Your task to perform on an android device: Show me popular games on the Play Store Image 0: 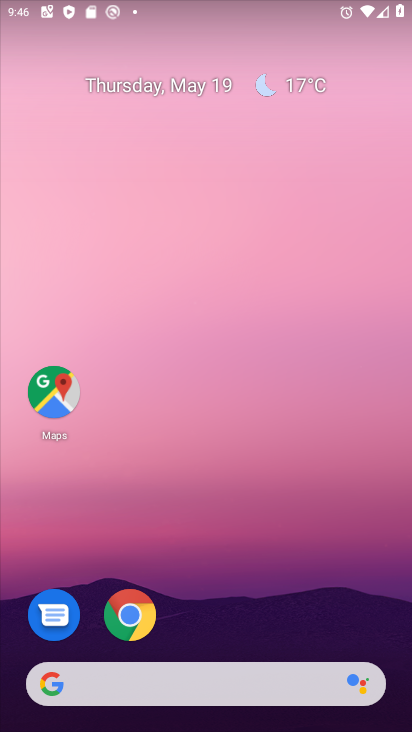
Step 0: drag from (286, 604) to (223, 76)
Your task to perform on an android device: Show me popular games on the Play Store Image 1: 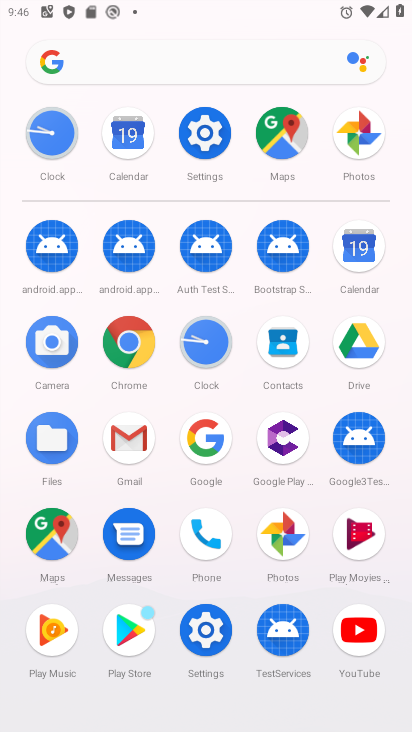
Step 1: click (142, 627)
Your task to perform on an android device: Show me popular games on the Play Store Image 2: 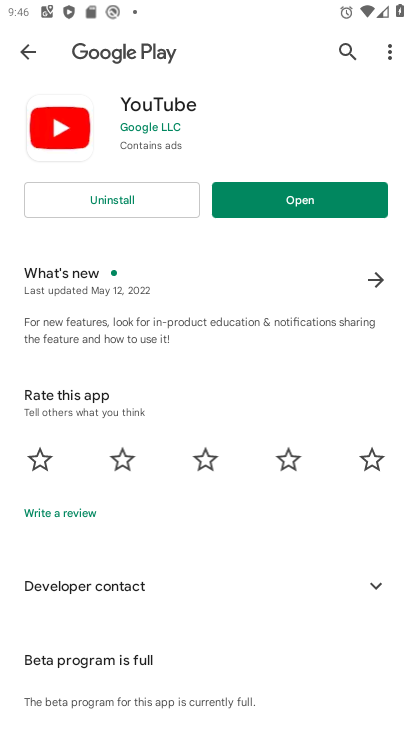
Step 2: press home button
Your task to perform on an android device: Show me popular games on the Play Store Image 3: 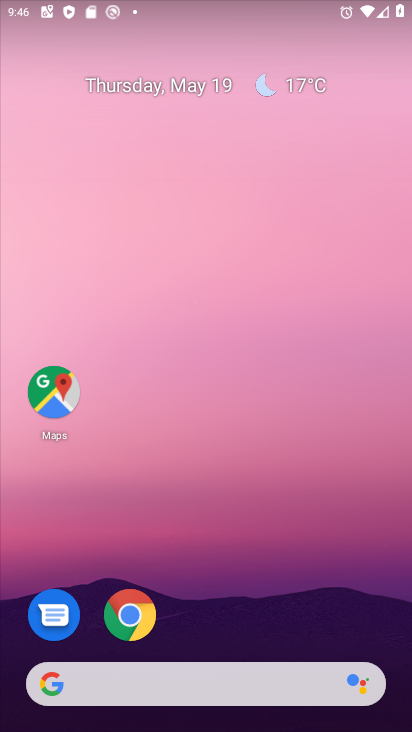
Step 3: drag from (256, 543) to (269, 102)
Your task to perform on an android device: Show me popular games on the Play Store Image 4: 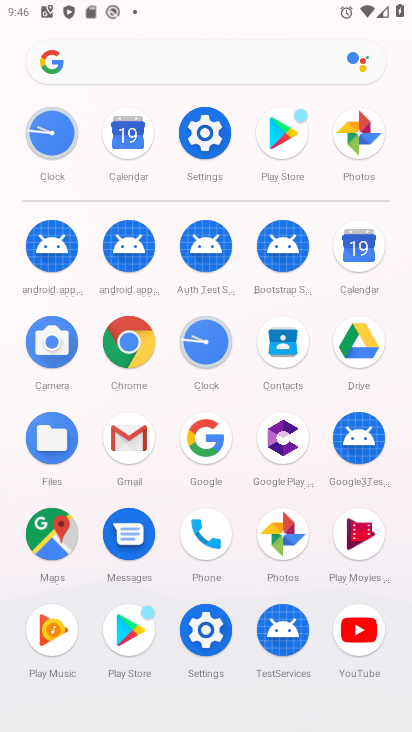
Step 4: click (125, 617)
Your task to perform on an android device: Show me popular games on the Play Store Image 5: 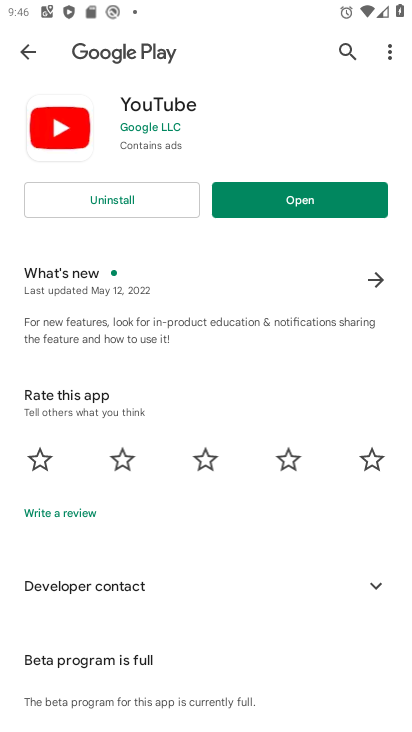
Step 5: click (30, 44)
Your task to perform on an android device: Show me popular games on the Play Store Image 6: 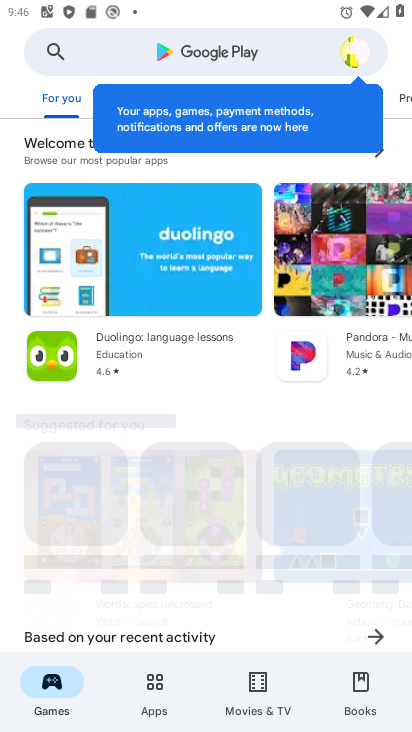
Step 6: click (107, 44)
Your task to perform on an android device: Show me popular games on the Play Store Image 7: 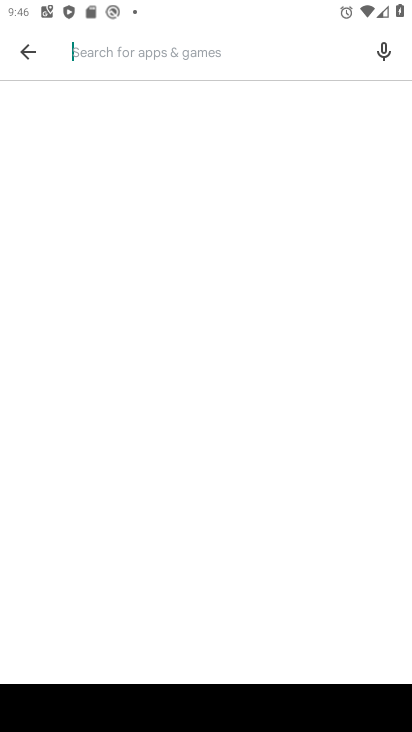
Step 7: type " popular games"
Your task to perform on an android device: Show me popular games on the Play Store Image 8: 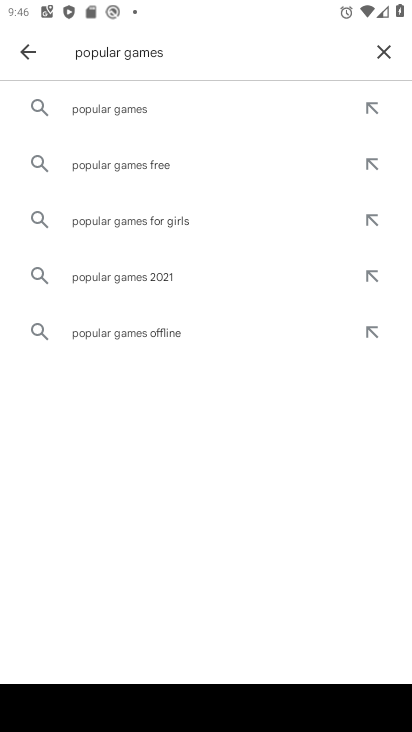
Step 8: click (162, 108)
Your task to perform on an android device: Show me popular games on the Play Store Image 9: 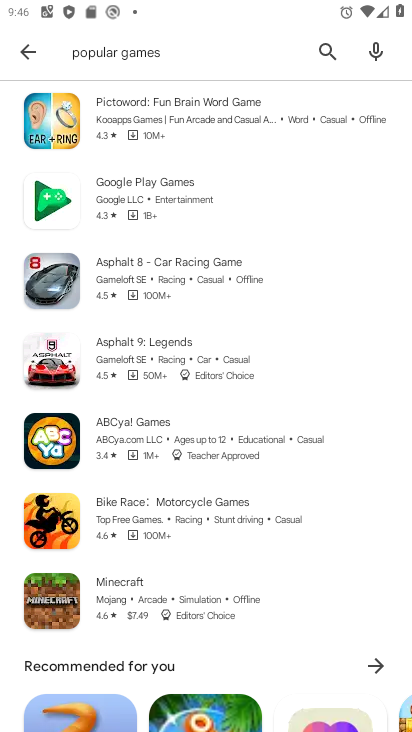
Step 9: task complete